Your task to perform on an android device: Go to accessibility settings Image 0: 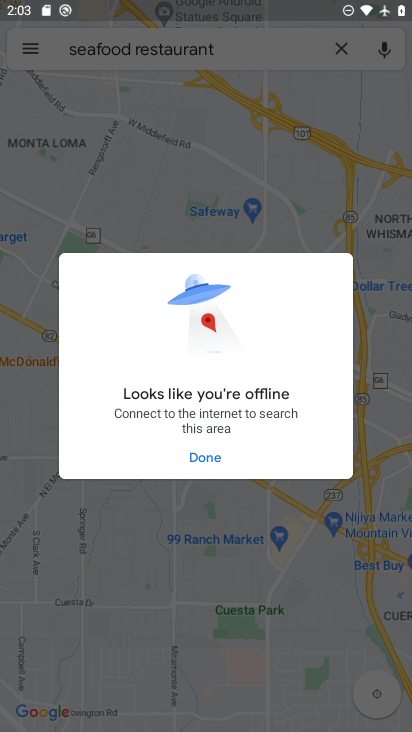
Step 0: click (200, 454)
Your task to perform on an android device: Go to accessibility settings Image 1: 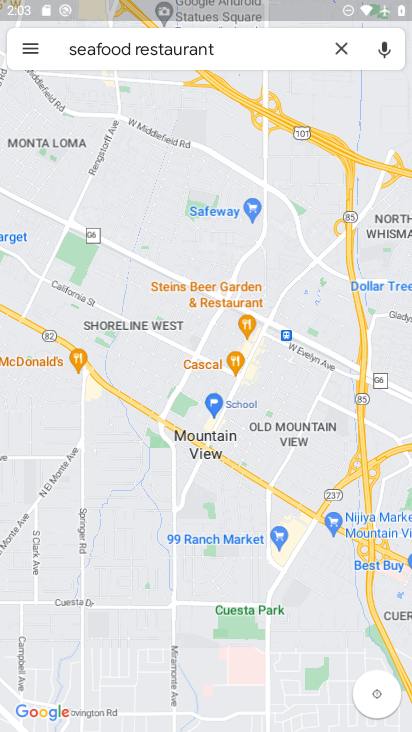
Step 1: press home button
Your task to perform on an android device: Go to accessibility settings Image 2: 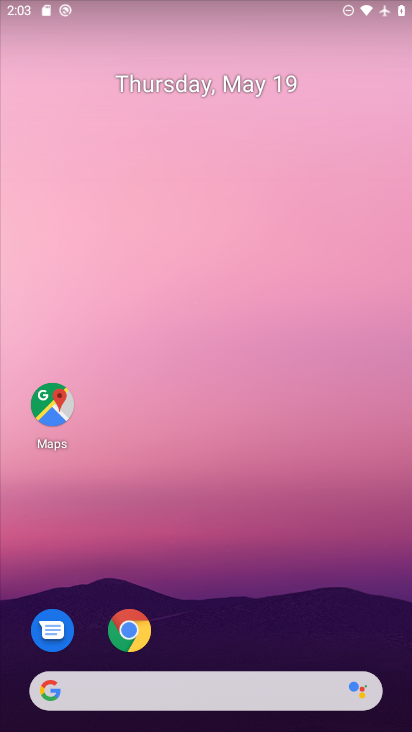
Step 2: drag from (200, 684) to (119, 25)
Your task to perform on an android device: Go to accessibility settings Image 3: 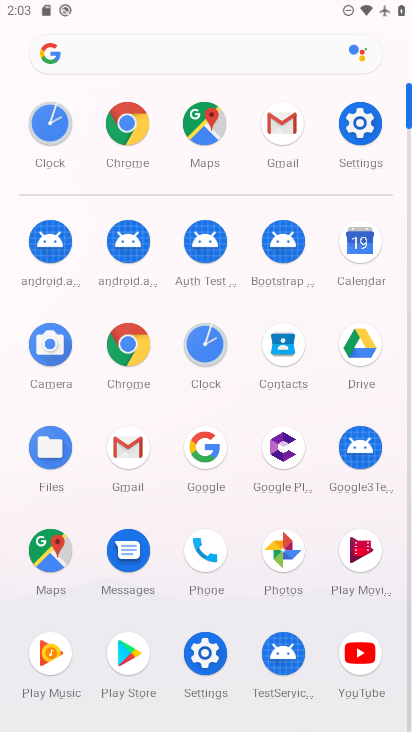
Step 3: click (344, 115)
Your task to perform on an android device: Go to accessibility settings Image 4: 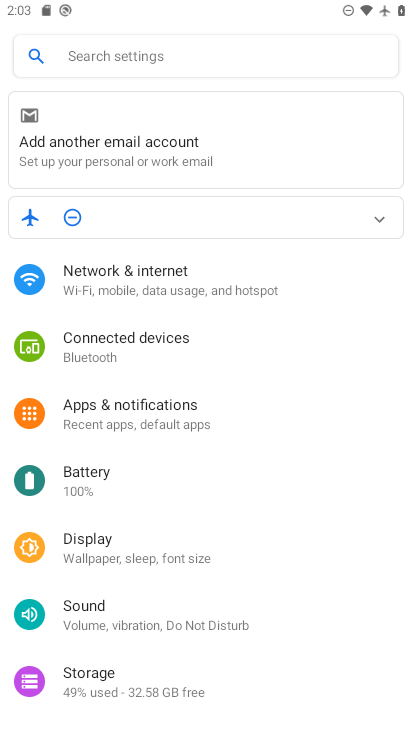
Step 4: drag from (177, 581) to (148, 45)
Your task to perform on an android device: Go to accessibility settings Image 5: 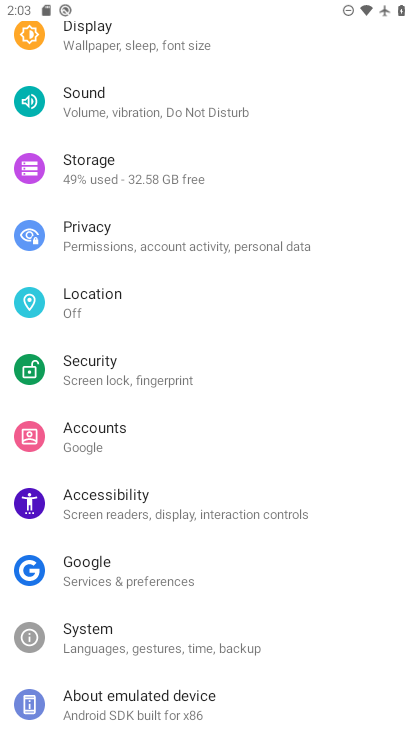
Step 5: click (139, 472)
Your task to perform on an android device: Go to accessibility settings Image 6: 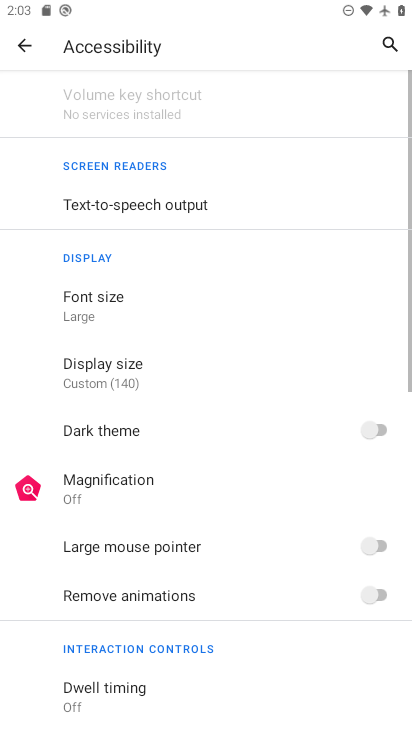
Step 6: task complete